Your task to perform on an android device: set an alarm Image 0: 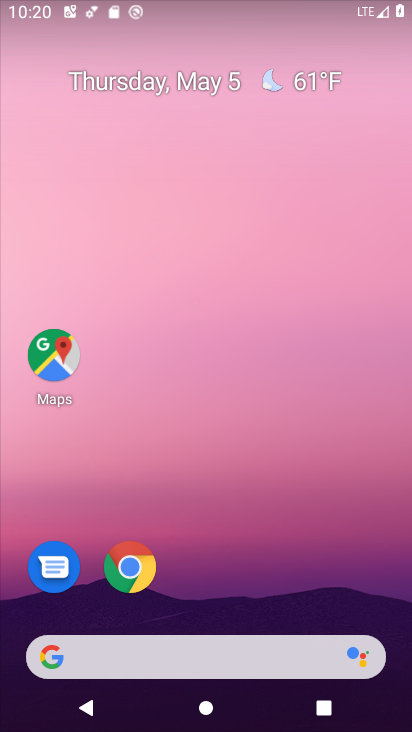
Step 0: drag from (232, 601) to (228, 205)
Your task to perform on an android device: set an alarm Image 1: 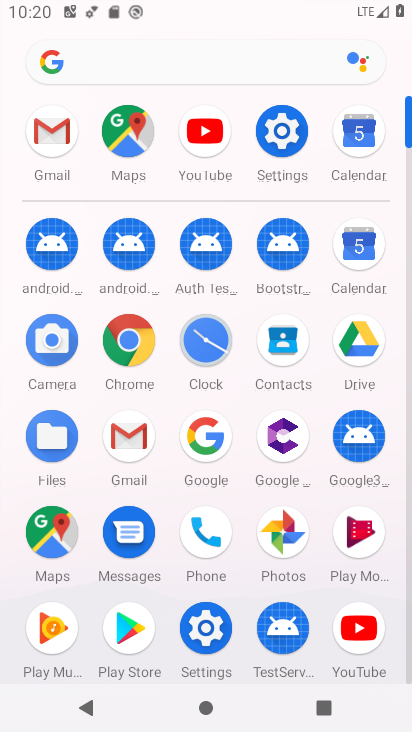
Step 1: click (211, 350)
Your task to perform on an android device: set an alarm Image 2: 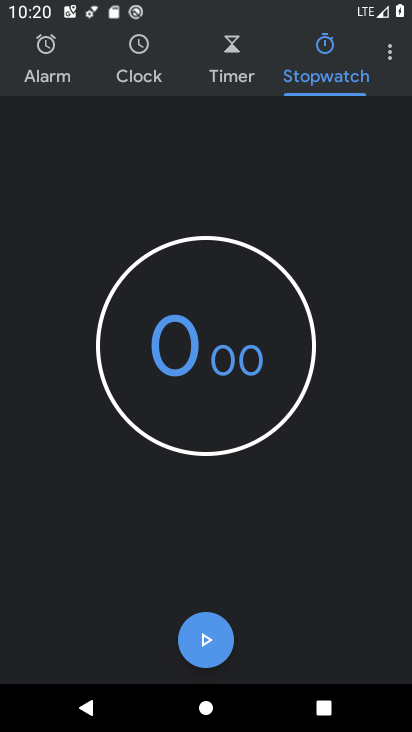
Step 2: click (50, 61)
Your task to perform on an android device: set an alarm Image 3: 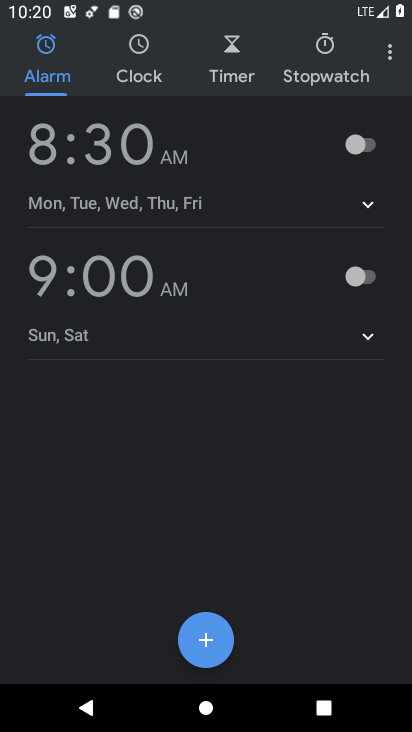
Step 3: click (368, 147)
Your task to perform on an android device: set an alarm Image 4: 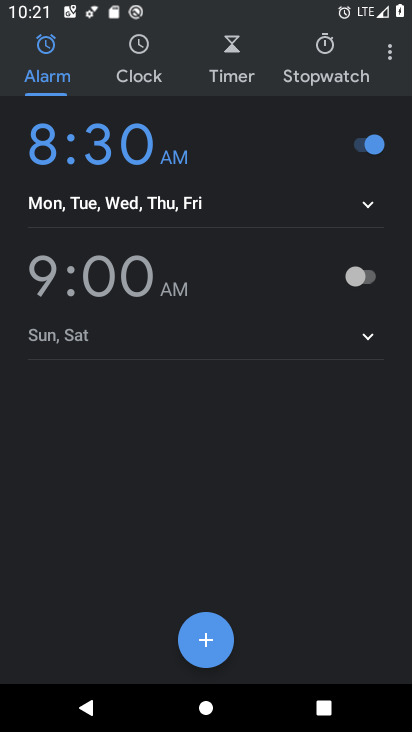
Step 4: task complete